Your task to perform on an android device: open app "Microsoft Excel" Image 0: 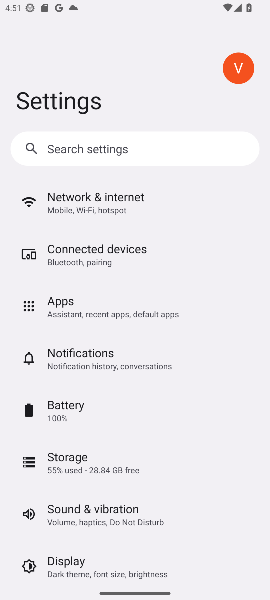
Step 0: press home button
Your task to perform on an android device: open app "Microsoft Excel" Image 1: 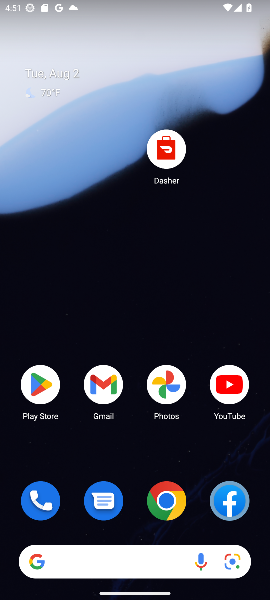
Step 1: click (37, 386)
Your task to perform on an android device: open app "Microsoft Excel" Image 2: 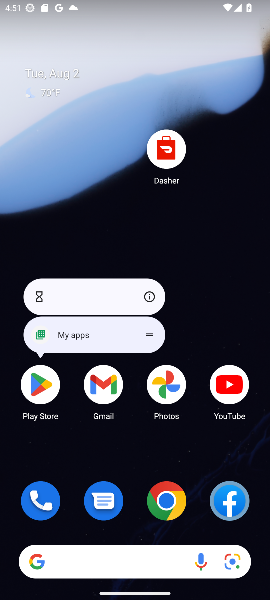
Step 2: click (39, 392)
Your task to perform on an android device: open app "Microsoft Excel" Image 3: 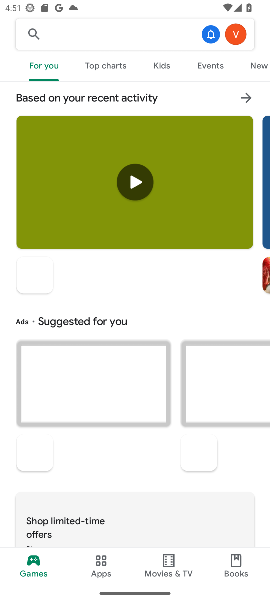
Step 3: click (86, 37)
Your task to perform on an android device: open app "Microsoft Excel" Image 4: 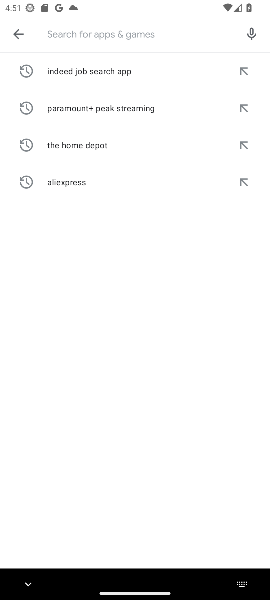
Step 4: type "Microsoft Excel"
Your task to perform on an android device: open app "Microsoft Excel" Image 5: 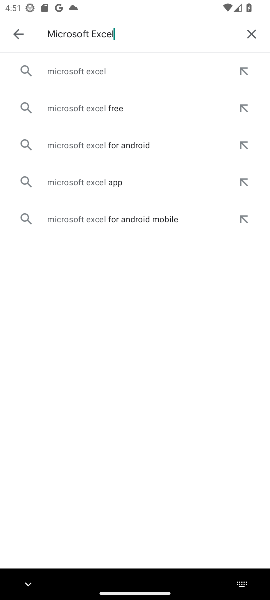
Step 5: click (95, 75)
Your task to perform on an android device: open app "Microsoft Excel" Image 6: 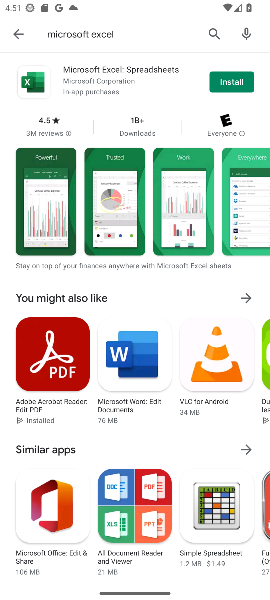
Step 6: task complete